Your task to perform on an android device: Search for sushi restaurants on Maps Image 0: 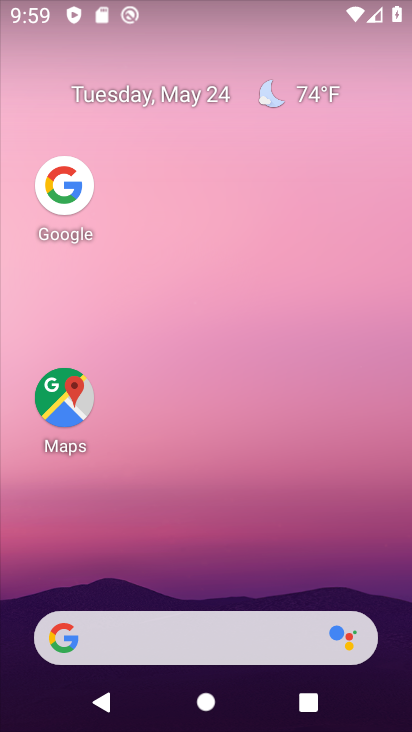
Step 0: click (89, 396)
Your task to perform on an android device: Search for sushi restaurants on Maps Image 1: 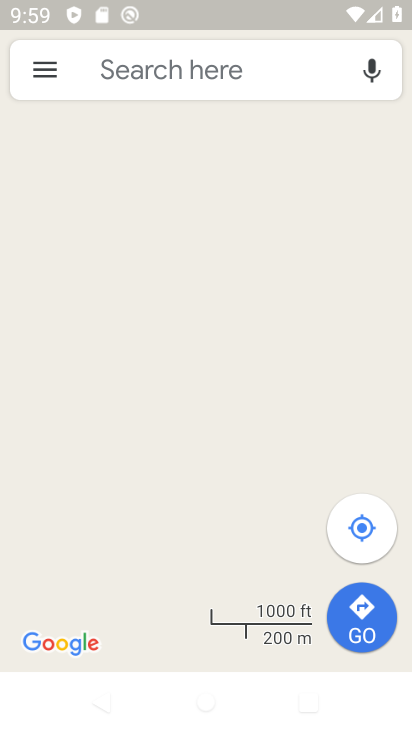
Step 1: click (239, 86)
Your task to perform on an android device: Search for sushi restaurants on Maps Image 2: 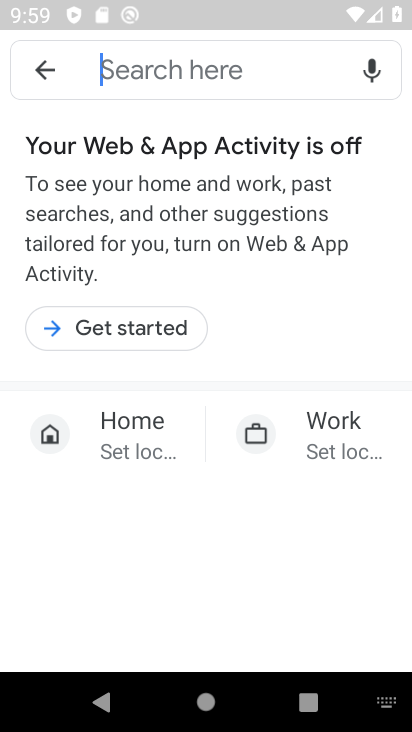
Step 2: click (123, 315)
Your task to perform on an android device: Search for sushi restaurants on Maps Image 3: 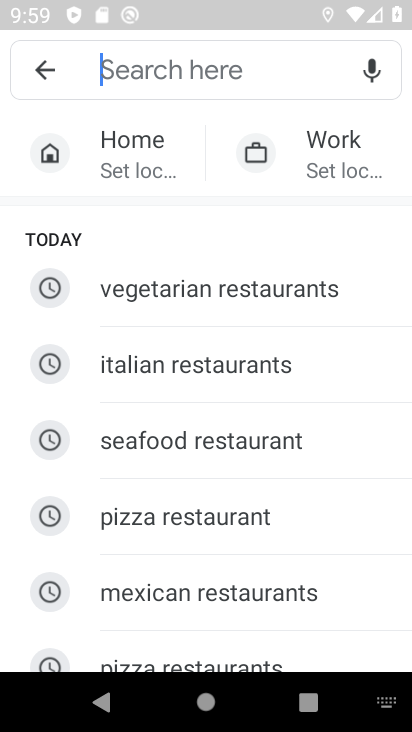
Step 3: drag from (151, 537) to (103, 193)
Your task to perform on an android device: Search for sushi restaurants on Maps Image 4: 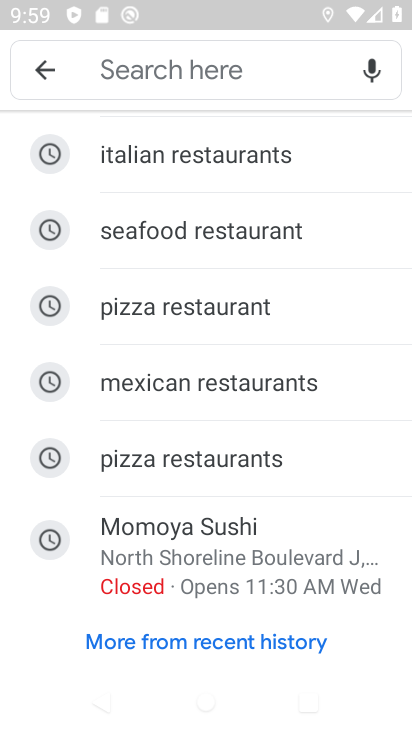
Step 4: click (224, 55)
Your task to perform on an android device: Search for sushi restaurants on Maps Image 5: 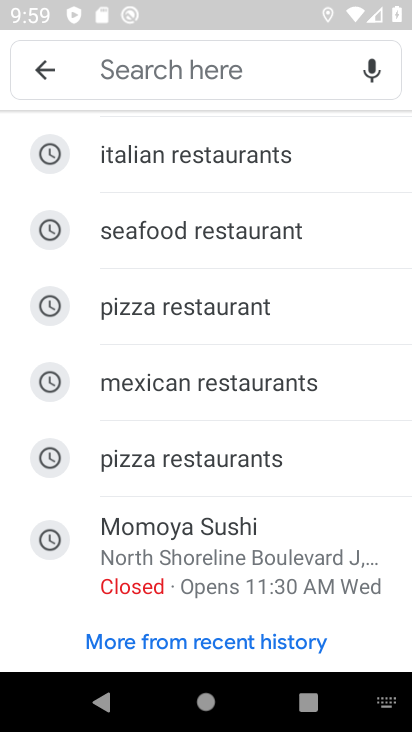
Step 5: type "sushi restuarant"
Your task to perform on an android device: Search for sushi restaurants on Maps Image 6: 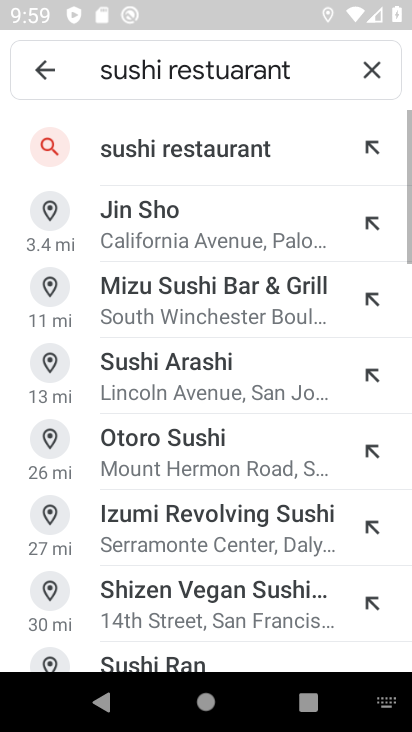
Step 6: click (234, 144)
Your task to perform on an android device: Search for sushi restaurants on Maps Image 7: 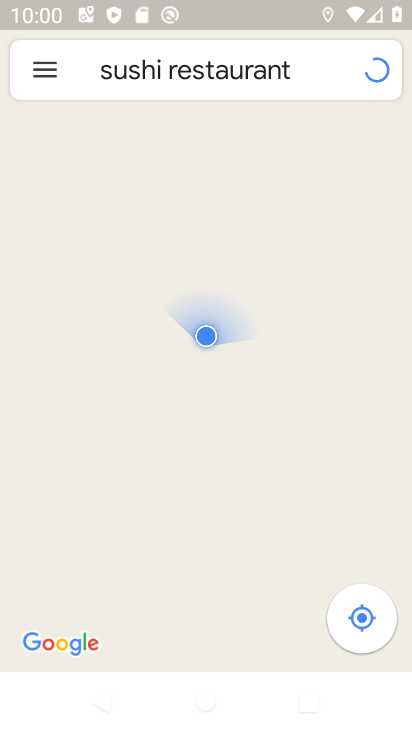
Step 7: task complete